Your task to perform on an android device: all mails in gmail Image 0: 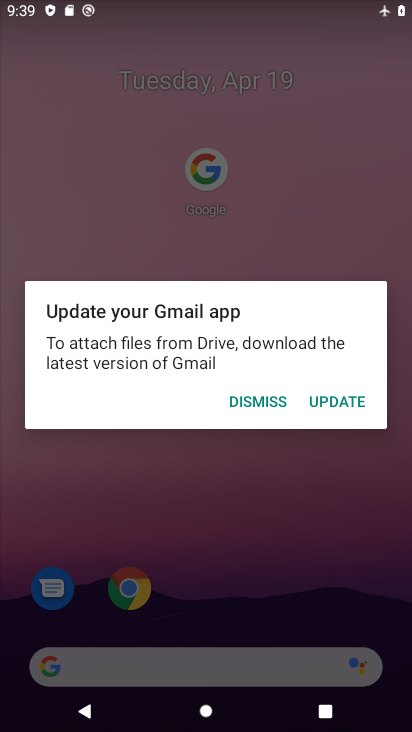
Step 0: press home button
Your task to perform on an android device: all mails in gmail Image 1: 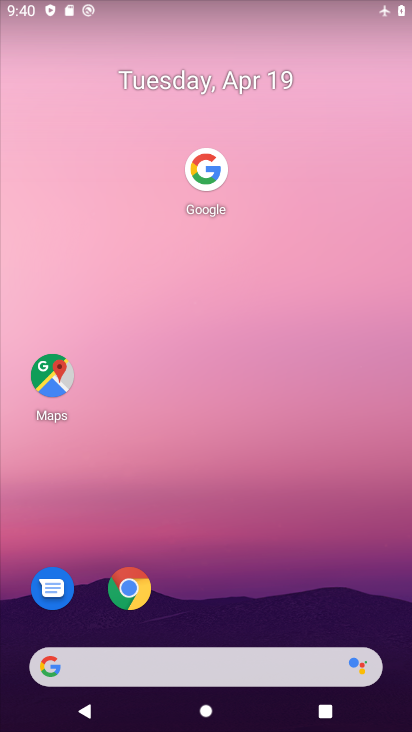
Step 1: drag from (225, 593) to (138, 21)
Your task to perform on an android device: all mails in gmail Image 2: 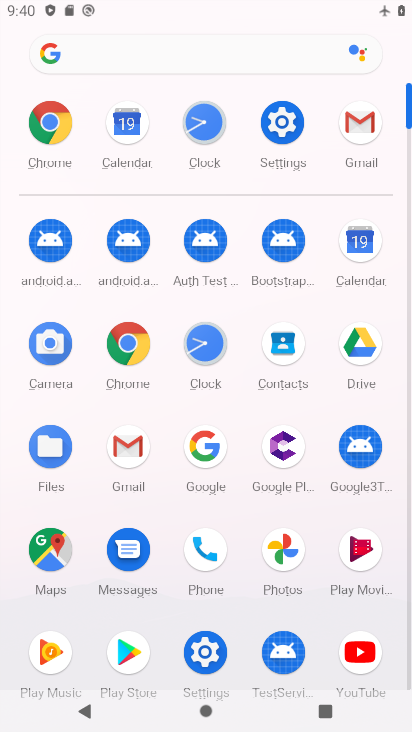
Step 2: click (353, 129)
Your task to perform on an android device: all mails in gmail Image 3: 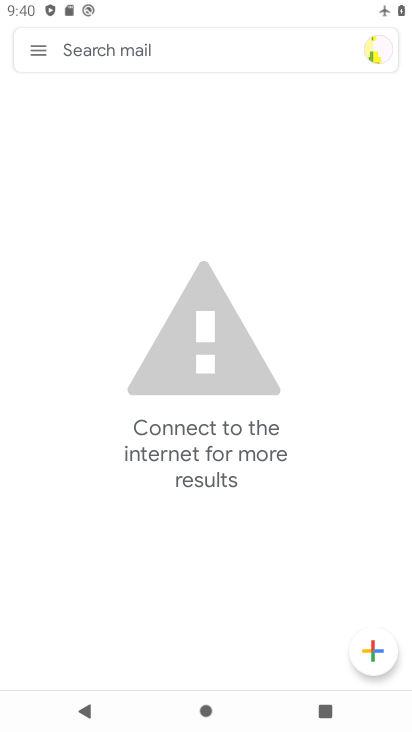
Step 3: click (39, 51)
Your task to perform on an android device: all mails in gmail Image 4: 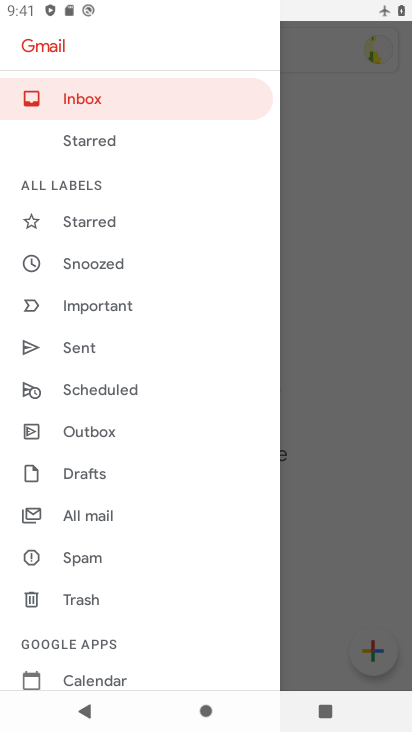
Step 4: drag from (157, 523) to (116, 326)
Your task to perform on an android device: all mails in gmail Image 5: 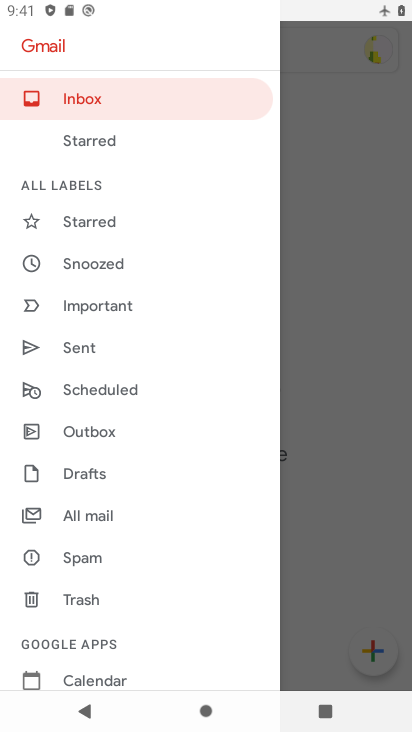
Step 5: click (69, 517)
Your task to perform on an android device: all mails in gmail Image 6: 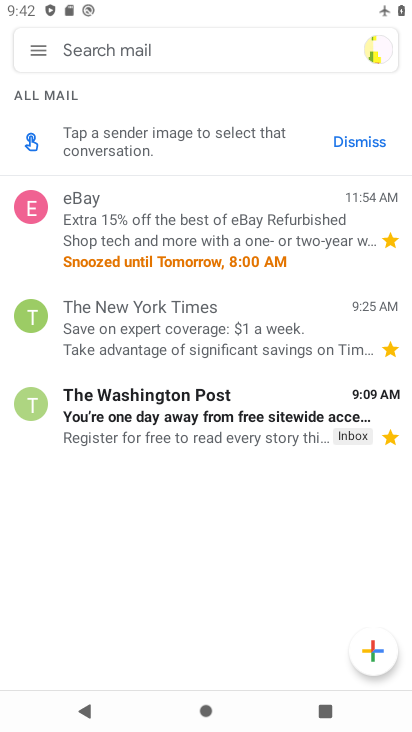
Step 6: task complete